Your task to perform on an android device: Open Chrome and go to settings Image 0: 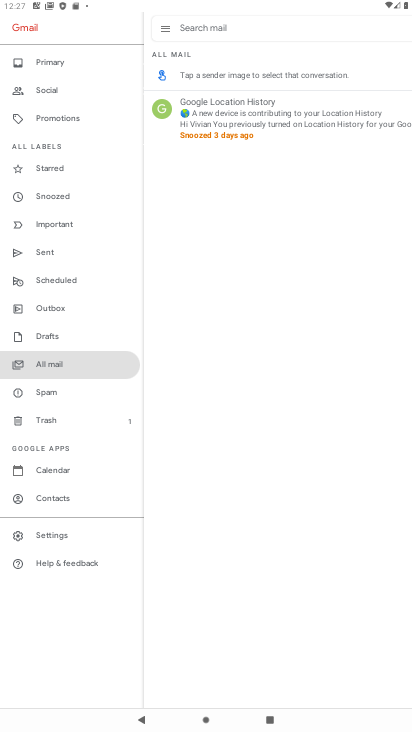
Step 0: press home button
Your task to perform on an android device: Open Chrome and go to settings Image 1: 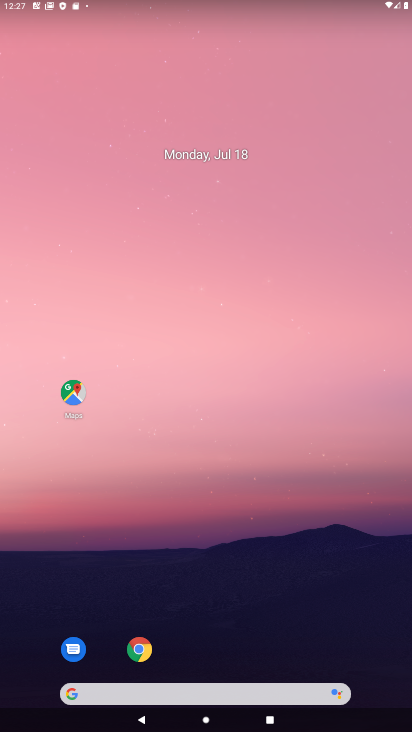
Step 1: click (138, 651)
Your task to perform on an android device: Open Chrome and go to settings Image 2: 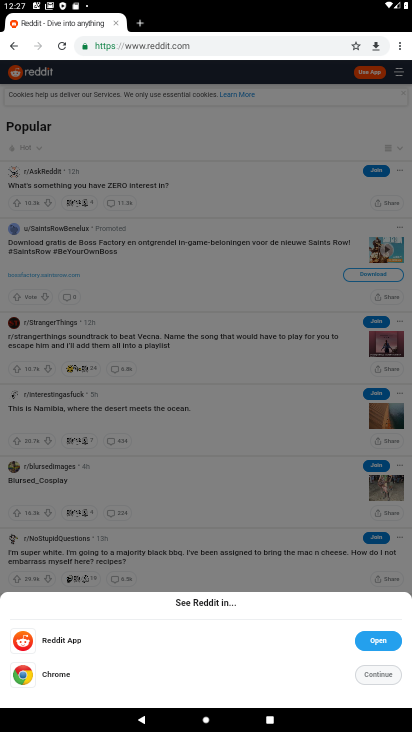
Step 2: click (401, 50)
Your task to perform on an android device: Open Chrome and go to settings Image 3: 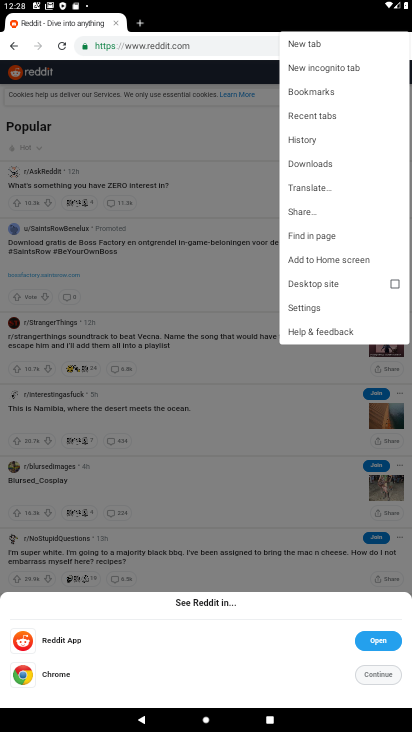
Step 3: click (303, 308)
Your task to perform on an android device: Open Chrome and go to settings Image 4: 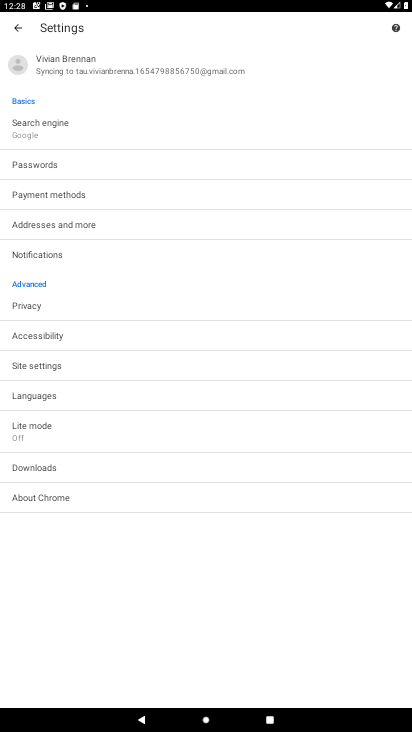
Step 4: task complete